Your task to perform on an android device: check out phone information Image 0: 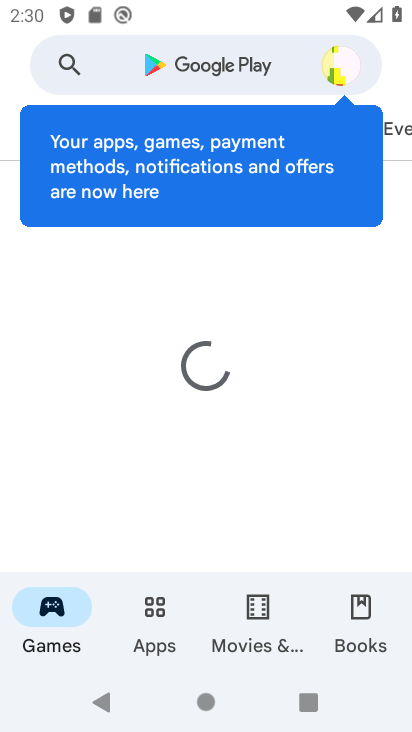
Step 0: press back button
Your task to perform on an android device: check out phone information Image 1: 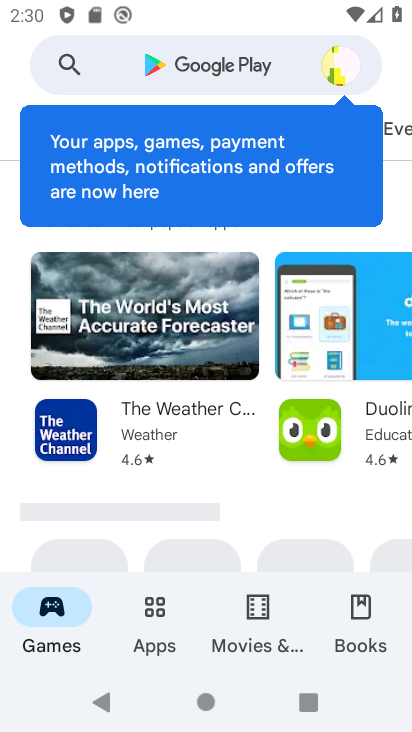
Step 1: press back button
Your task to perform on an android device: check out phone information Image 2: 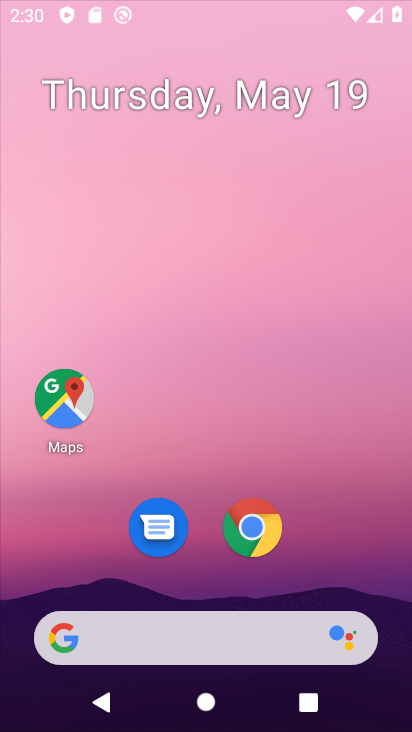
Step 2: press back button
Your task to perform on an android device: check out phone information Image 3: 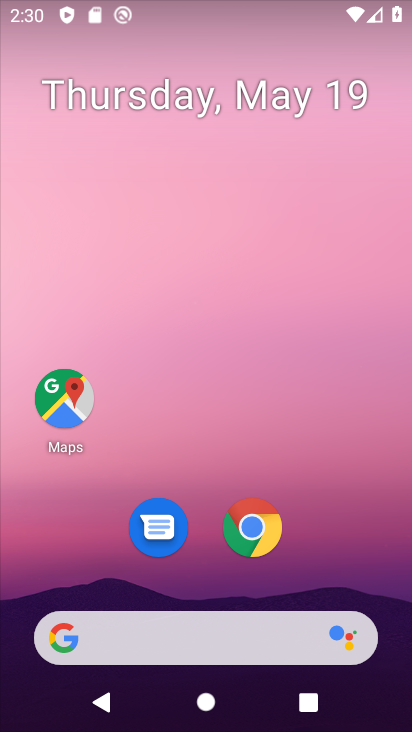
Step 3: drag from (295, 677) to (140, 126)
Your task to perform on an android device: check out phone information Image 4: 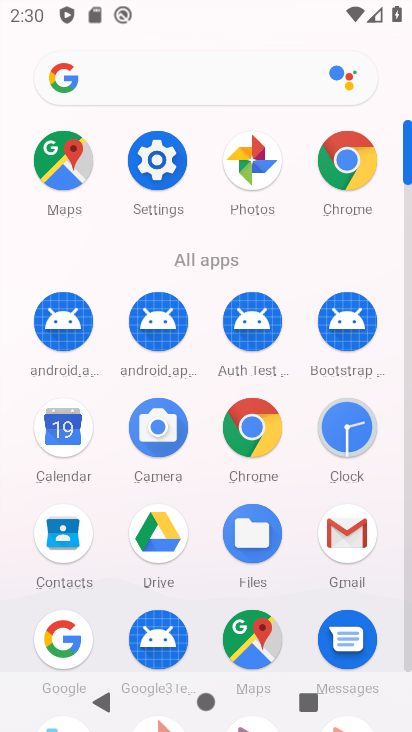
Step 4: click (149, 172)
Your task to perform on an android device: check out phone information Image 5: 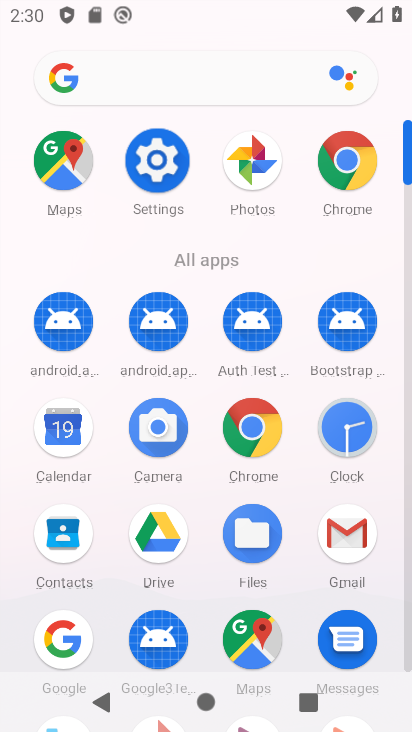
Step 5: click (149, 172)
Your task to perform on an android device: check out phone information Image 6: 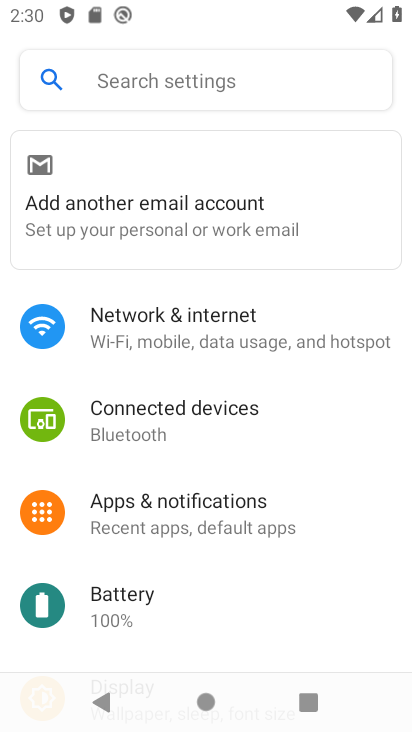
Step 6: drag from (180, 561) to (223, 57)
Your task to perform on an android device: check out phone information Image 7: 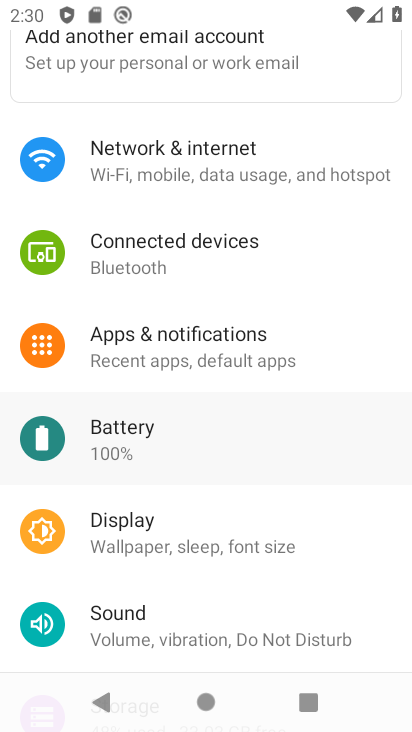
Step 7: drag from (265, 442) to (223, 102)
Your task to perform on an android device: check out phone information Image 8: 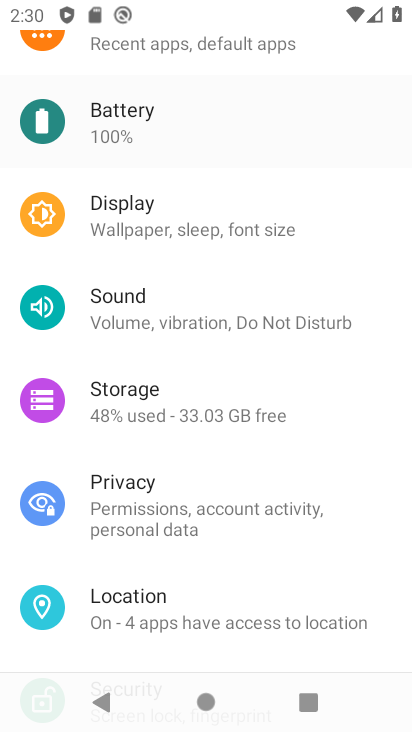
Step 8: drag from (204, 443) to (234, 145)
Your task to perform on an android device: check out phone information Image 9: 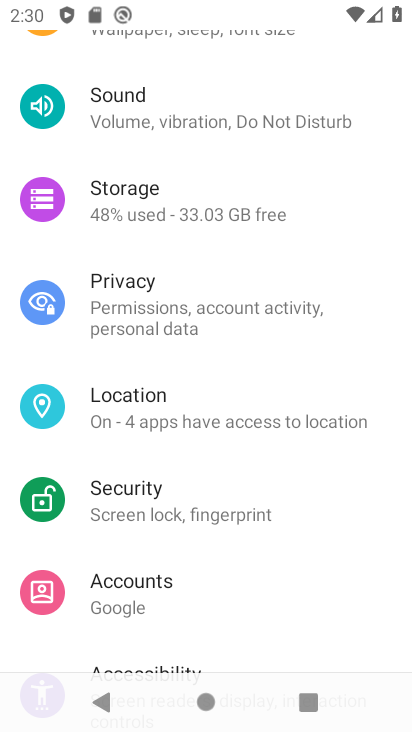
Step 9: drag from (268, 361) to (224, 47)
Your task to perform on an android device: check out phone information Image 10: 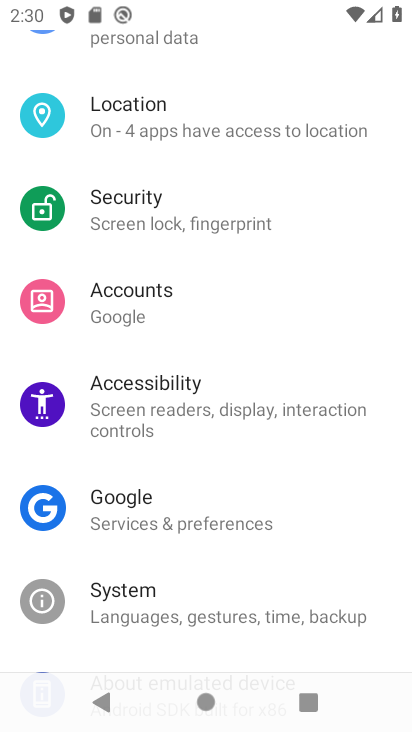
Step 10: drag from (153, 553) to (135, 171)
Your task to perform on an android device: check out phone information Image 11: 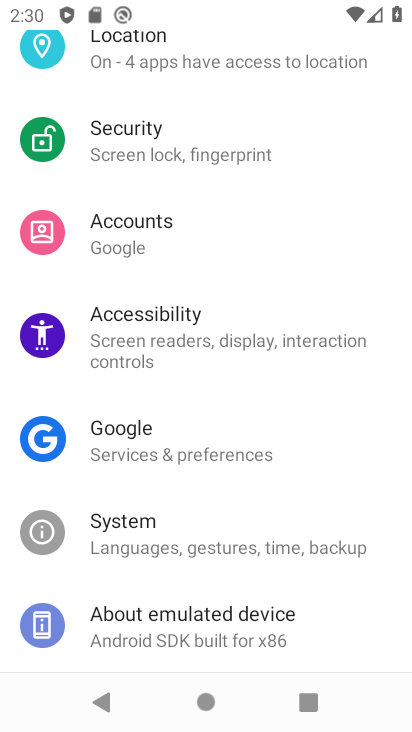
Step 11: click (183, 625)
Your task to perform on an android device: check out phone information Image 12: 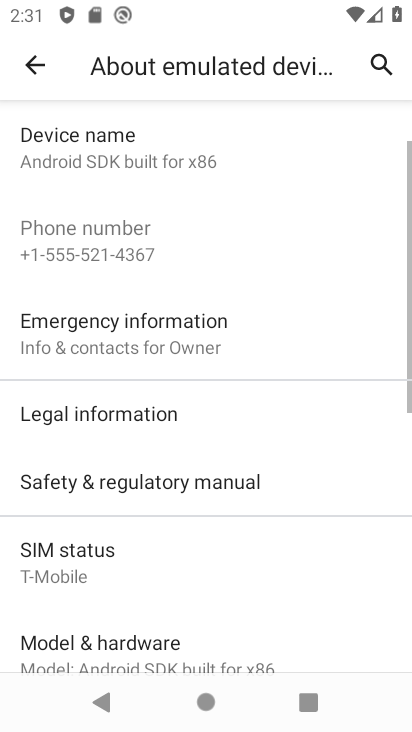
Step 12: task complete